Your task to perform on an android device: Open location settings Image 0: 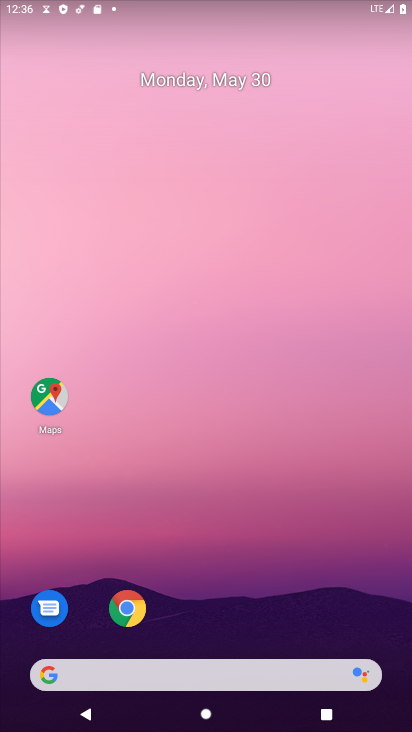
Step 0: drag from (225, 633) to (311, 2)
Your task to perform on an android device: Open location settings Image 1: 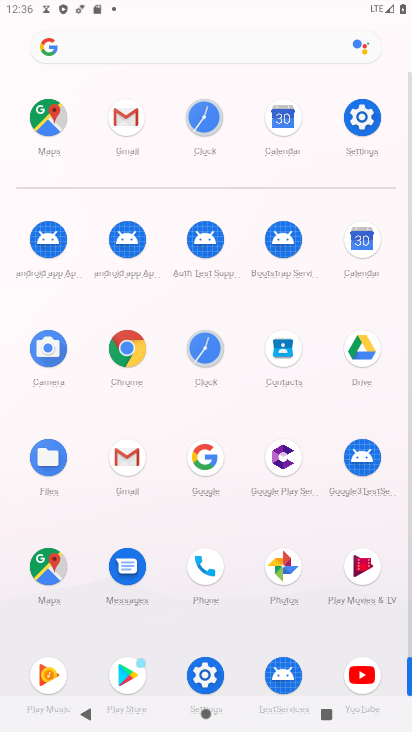
Step 1: click (198, 666)
Your task to perform on an android device: Open location settings Image 2: 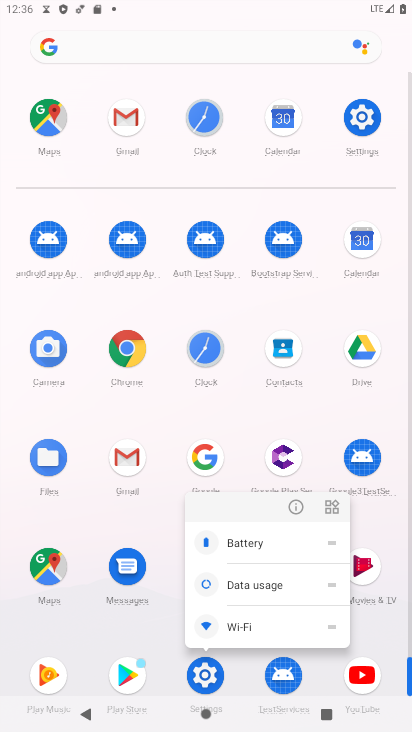
Step 2: click (198, 666)
Your task to perform on an android device: Open location settings Image 3: 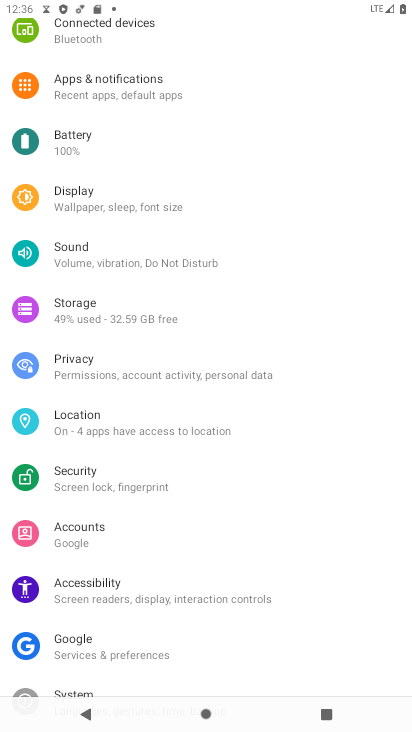
Step 3: click (128, 432)
Your task to perform on an android device: Open location settings Image 4: 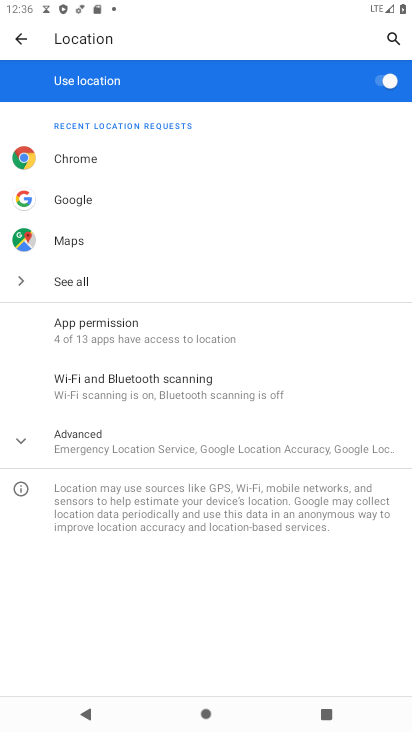
Step 4: task complete